Your task to perform on an android device: Open Amazon Image 0: 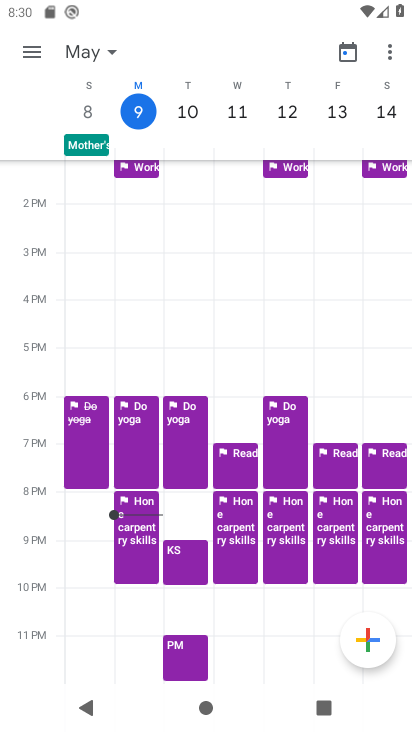
Step 0: press home button
Your task to perform on an android device: Open Amazon Image 1: 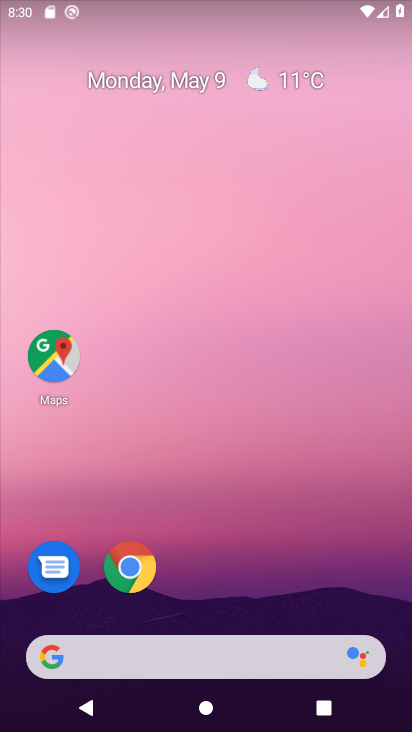
Step 1: drag from (245, 497) to (279, 28)
Your task to perform on an android device: Open Amazon Image 2: 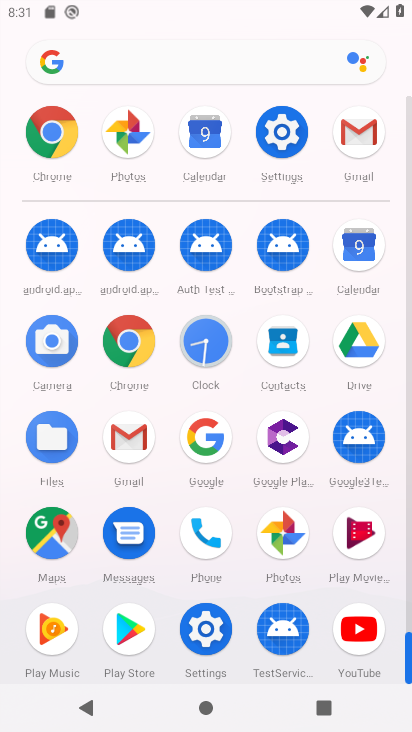
Step 2: click (55, 128)
Your task to perform on an android device: Open Amazon Image 3: 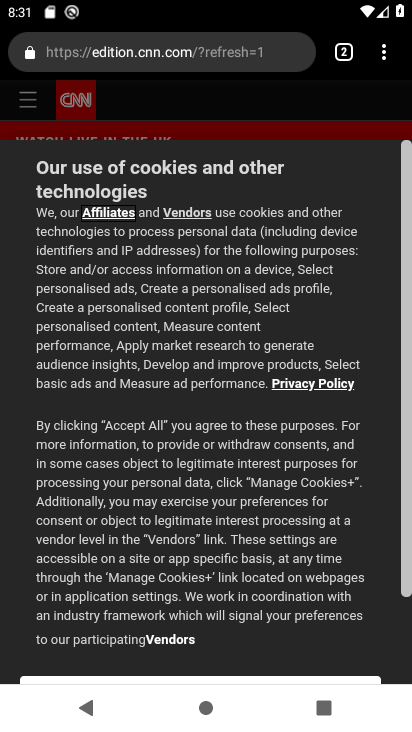
Step 3: click (382, 54)
Your task to perform on an android device: Open Amazon Image 4: 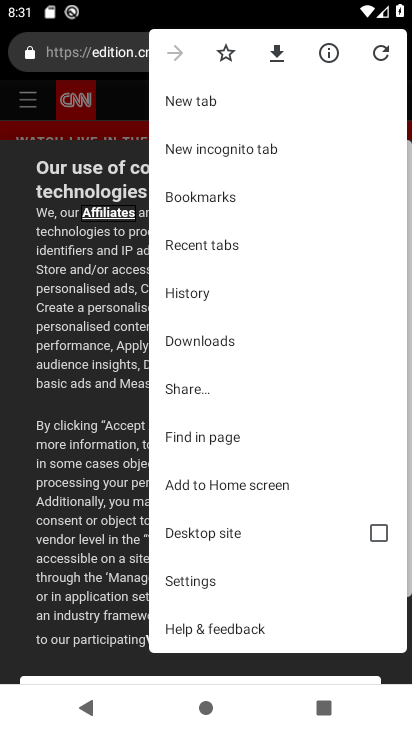
Step 4: click (266, 102)
Your task to perform on an android device: Open Amazon Image 5: 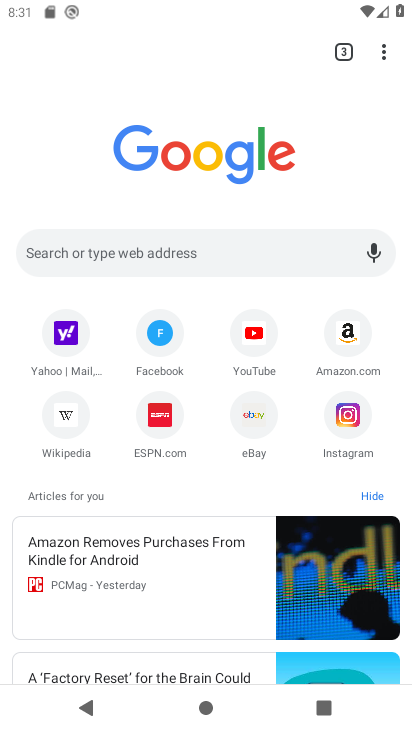
Step 5: click (341, 333)
Your task to perform on an android device: Open Amazon Image 6: 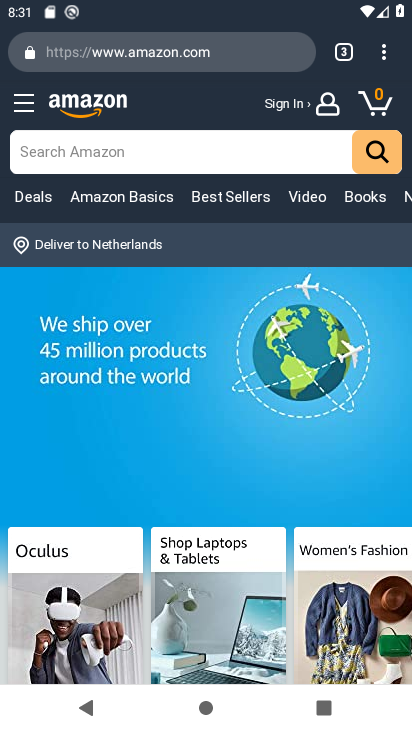
Step 6: task complete